Your task to perform on an android device: turn on wifi Image 0: 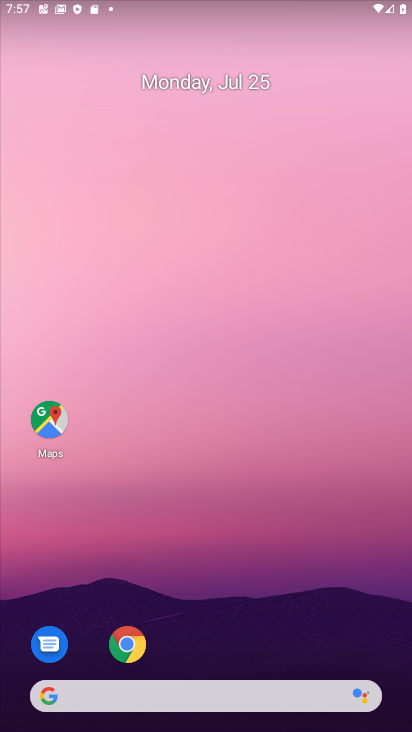
Step 0: drag from (172, 631) to (164, 186)
Your task to perform on an android device: turn on wifi Image 1: 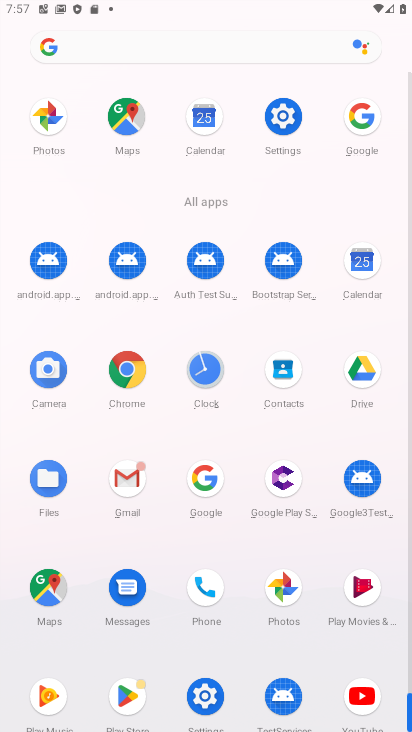
Step 1: click (285, 126)
Your task to perform on an android device: turn on wifi Image 2: 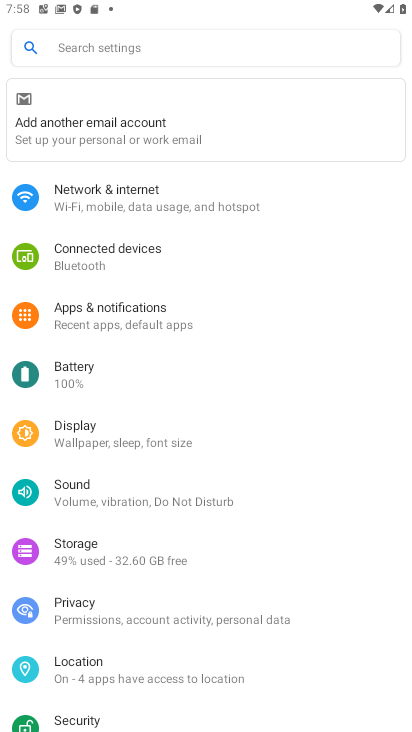
Step 2: click (171, 193)
Your task to perform on an android device: turn on wifi Image 3: 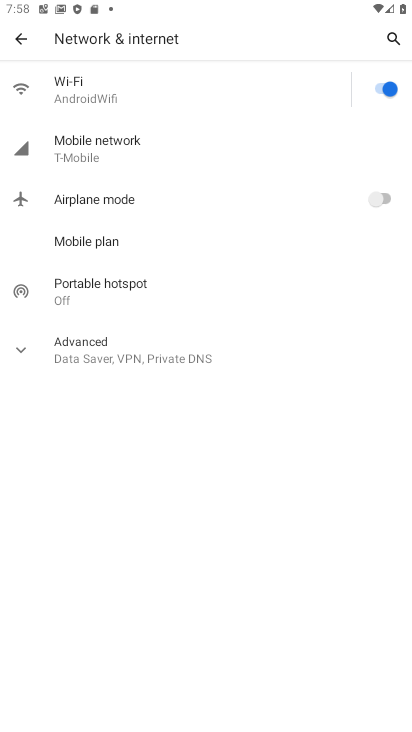
Step 3: task complete